Your task to perform on an android device: uninstall "Adobe Acrobat Reader" Image 0: 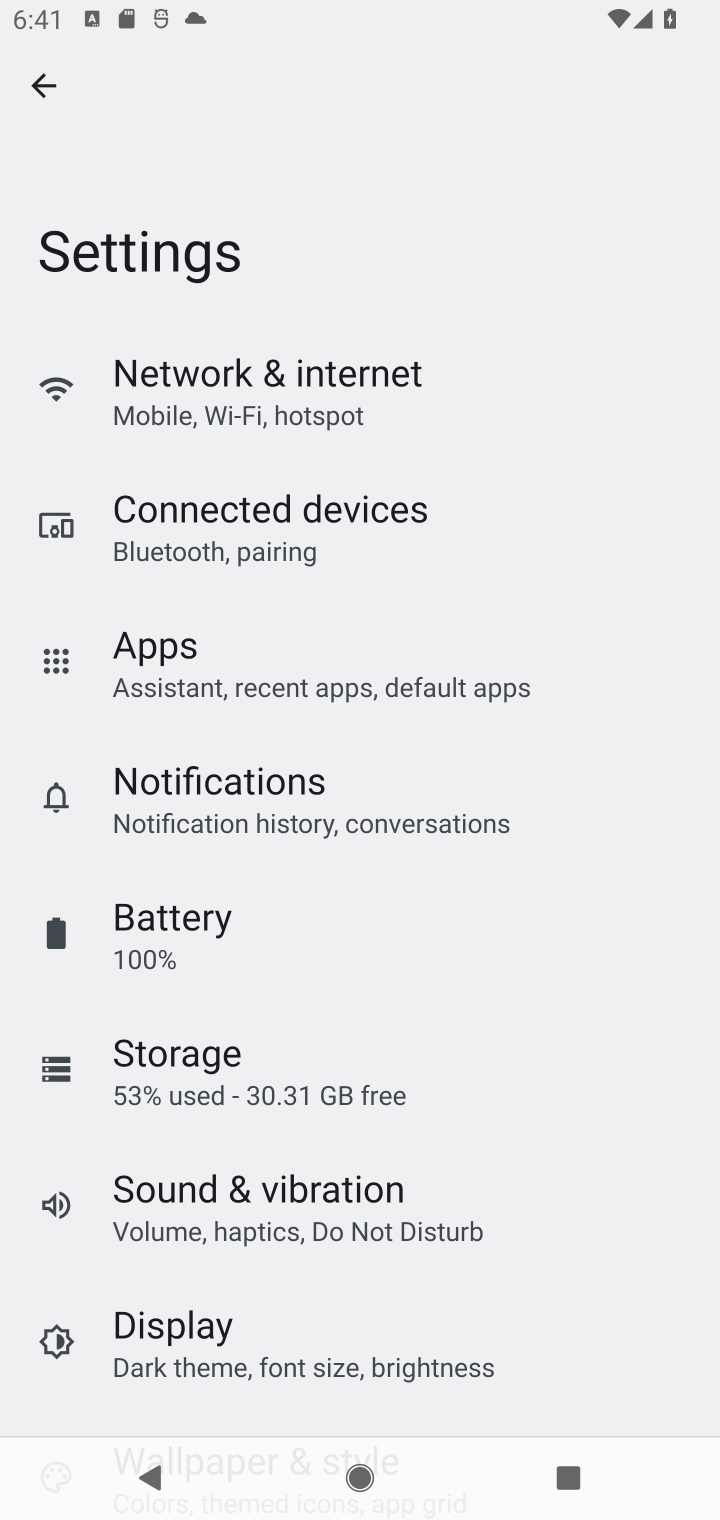
Step 0: press home button
Your task to perform on an android device: uninstall "Adobe Acrobat Reader" Image 1: 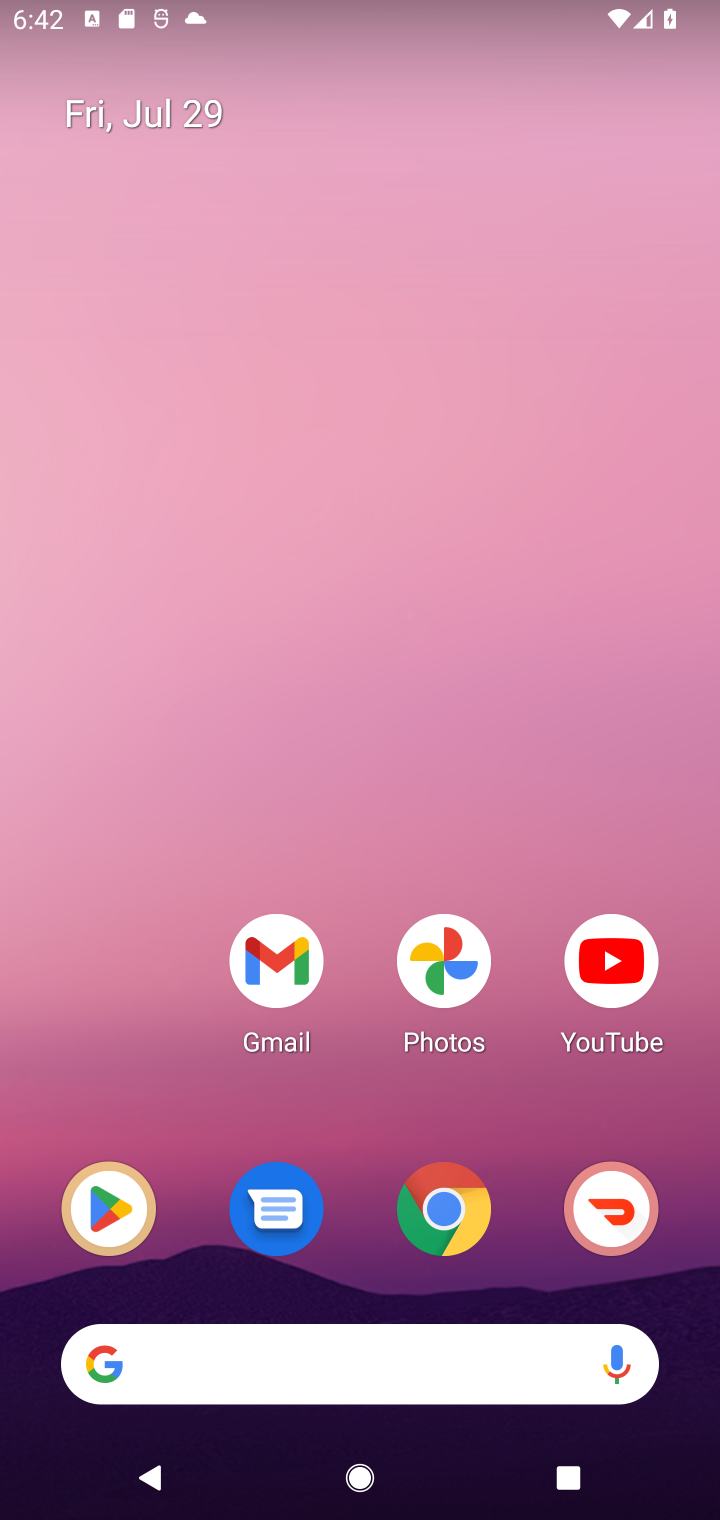
Step 1: drag from (354, 1181) to (343, 139)
Your task to perform on an android device: uninstall "Adobe Acrobat Reader" Image 2: 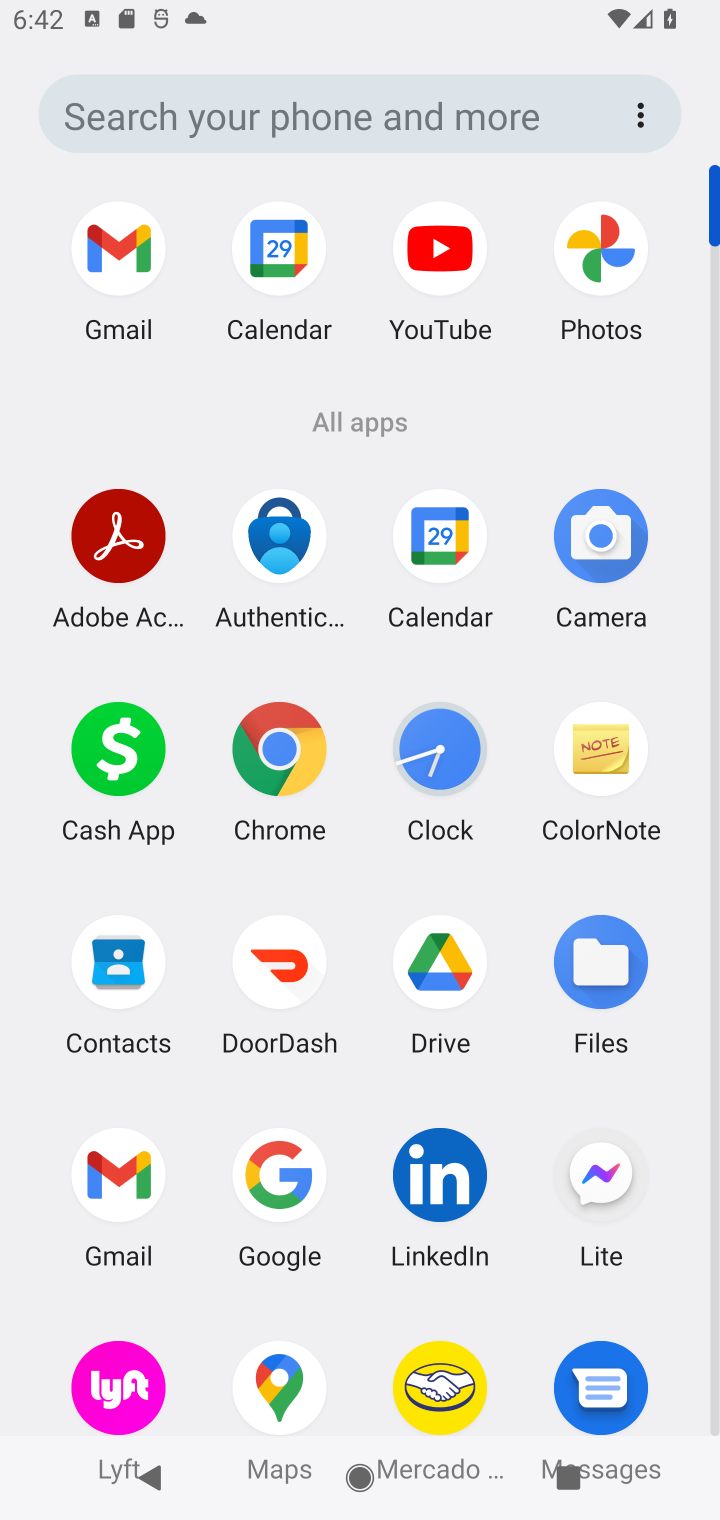
Step 2: click (95, 540)
Your task to perform on an android device: uninstall "Adobe Acrobat Reader" Image 3: 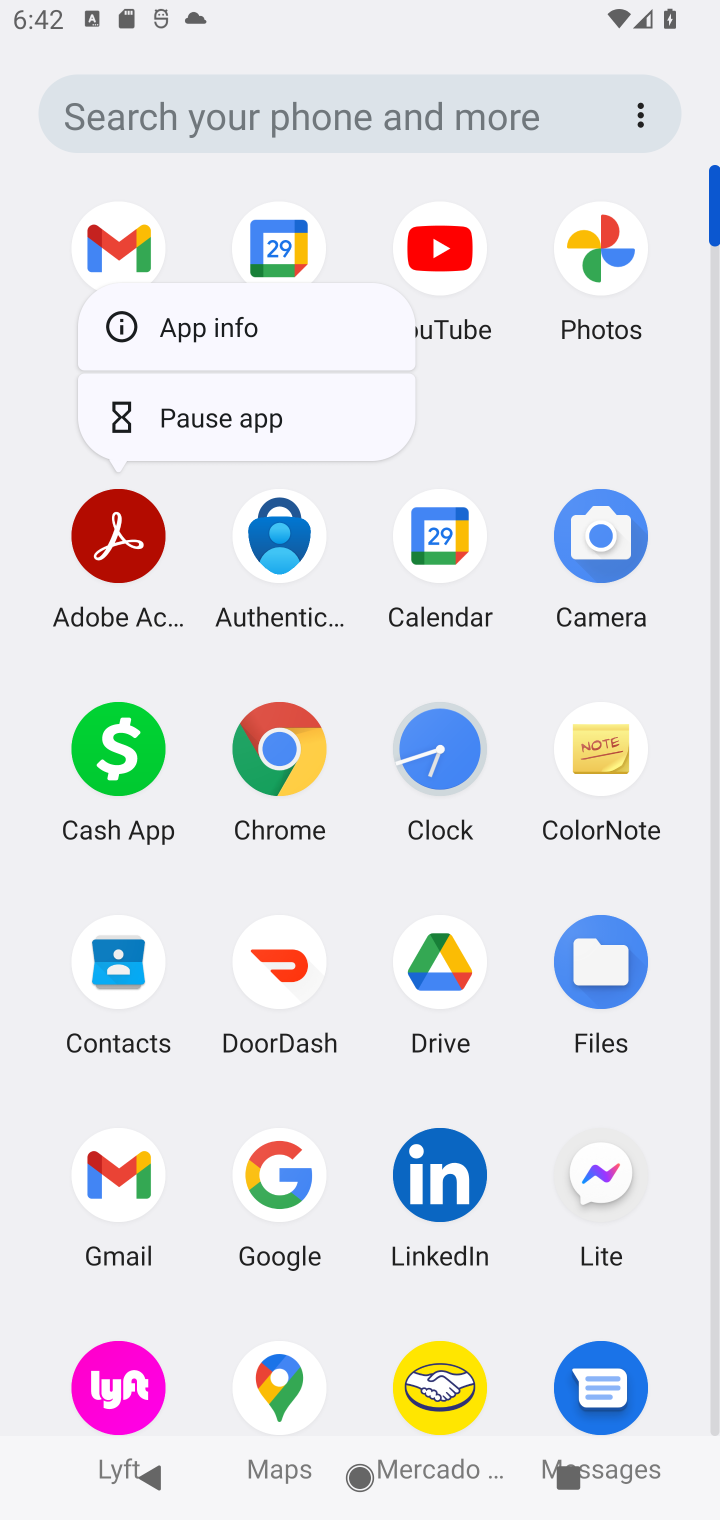
Step 3: click (192, 336)
Your task to perform on an android device: uninstall "Adobe Acrobat Reader" Image 4: 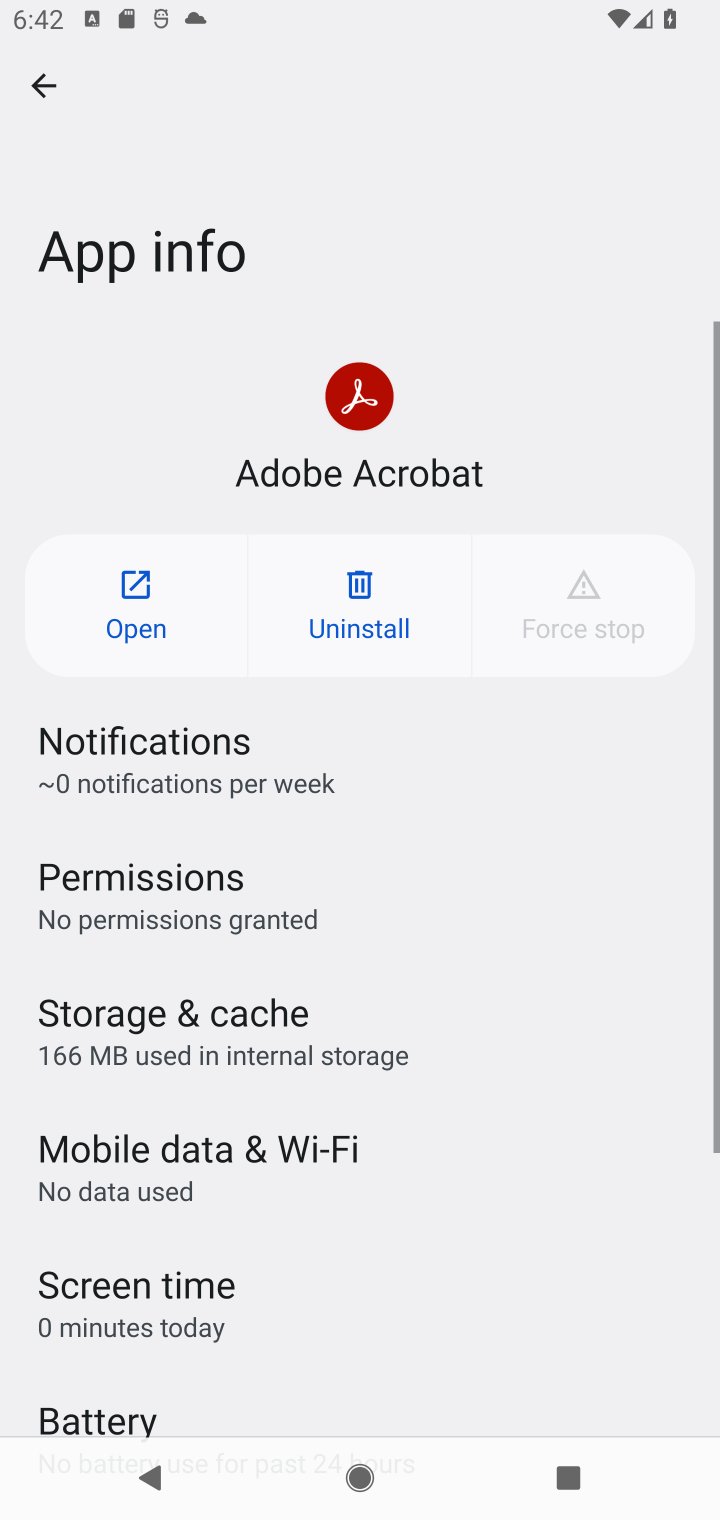
Step 4: click (360, 621)
Your task to perform on an android device: uninstall "Adobe Acrobat Reader" Image 5: 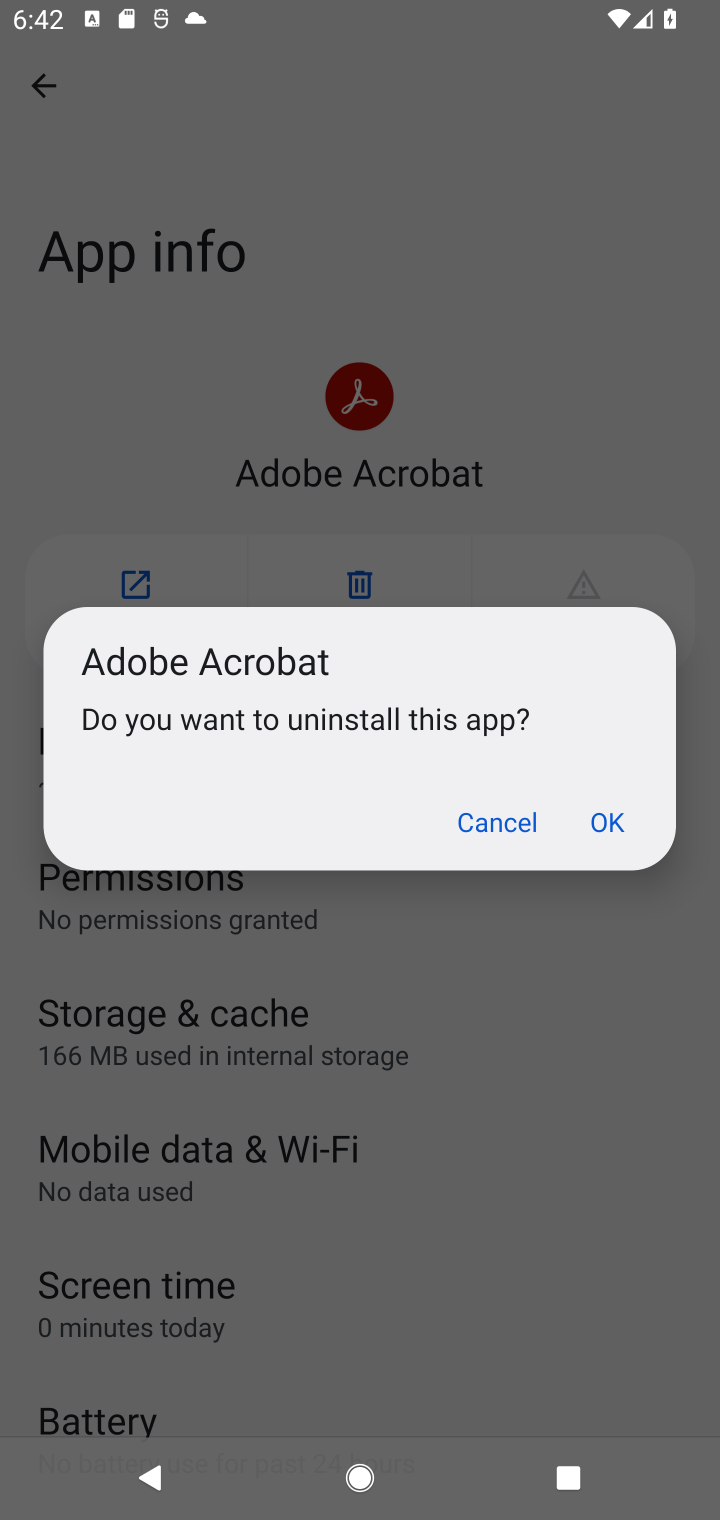
Step 5: click (613, 825)
Your task to perform on an android device: uninstall "Adobe Acrobat Reader" Image 6: 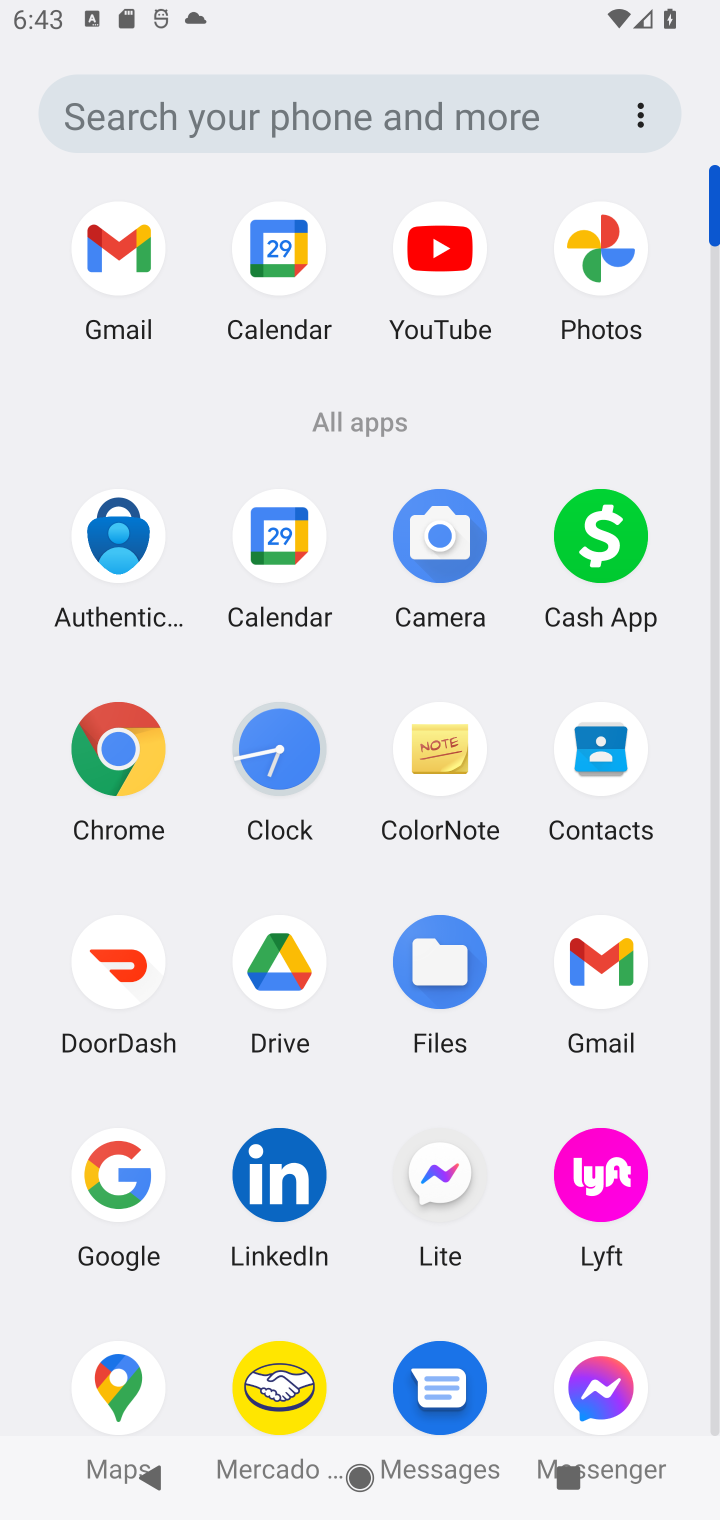
Step 6: task complete